Your task to perform on an android device: set the timer Image 0: 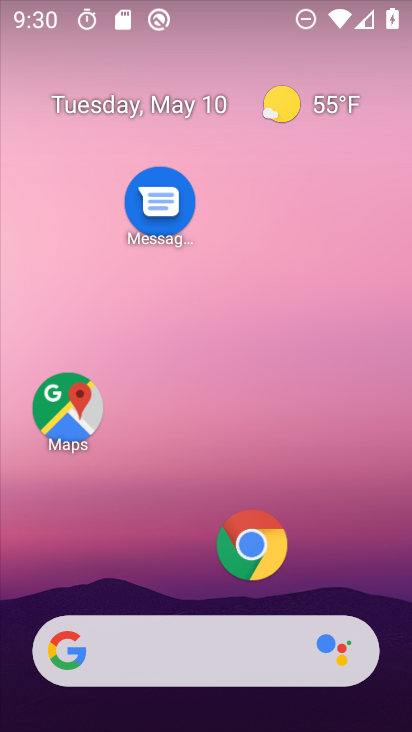
Step 0: drag from (196, 579) to (228, 131)
Your task to perform on an android device: set the timer Image 1: 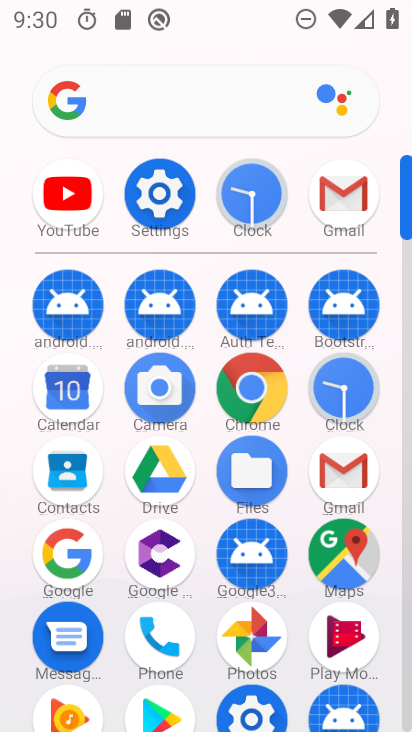
Step 1: click (251, 182)
Your task to perform on an android device: set the timer Image 2: 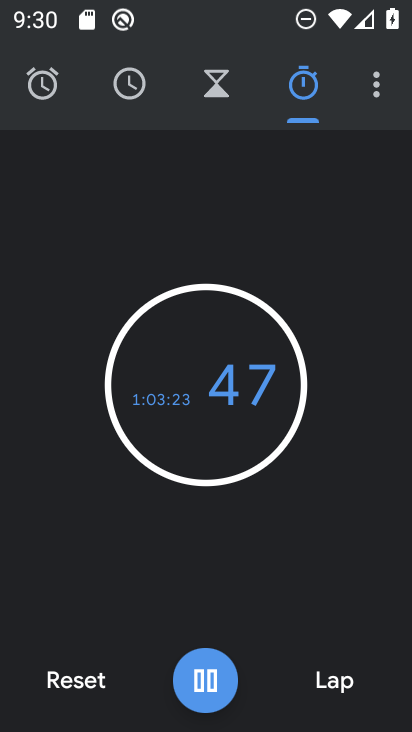
Step 2: click (384, 95)
Your task to perform on an android device: set the timer Image 3: 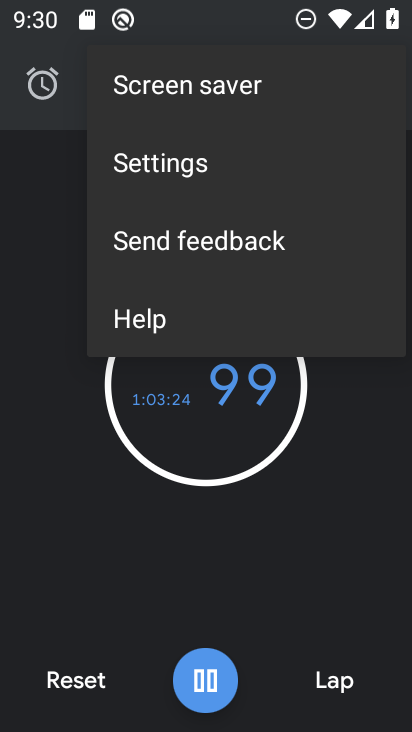
Step 3: click (168, 486)
Your task to perform on an android device: set the timer Image 4: 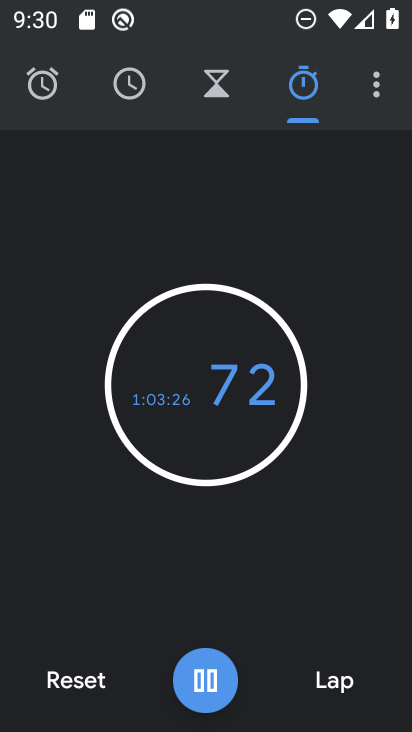
Step 4: click (216, 108)
Your task to perform on an android device: set the timer Image 5: 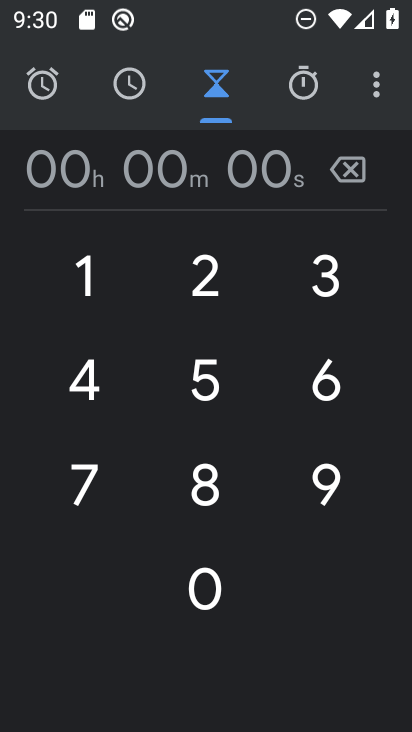
Step 5: click (272, 173)
Your task to perform on an android device: set the timer Image 6: 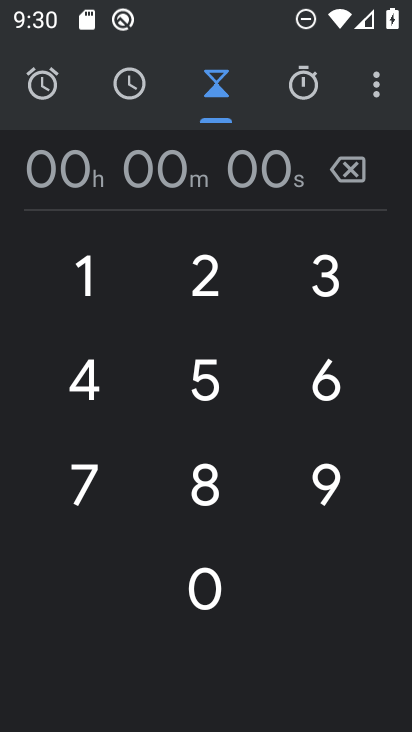
Step 6: type "23"
Your task to perform on an android device: set the timer Image 7: 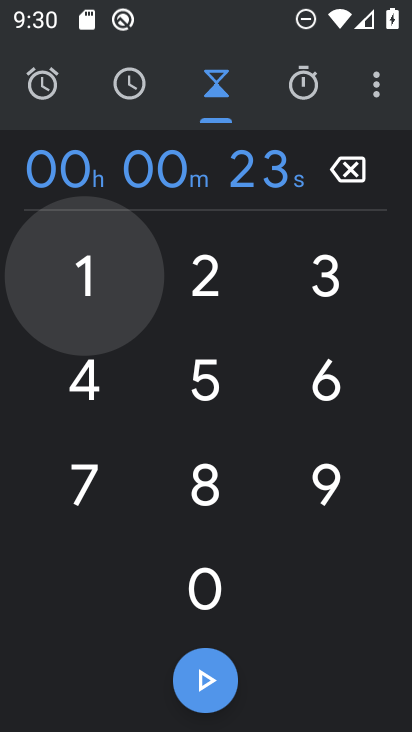
Step 7: click (207, 704)
Your task to perform on an android device: set the timer Image 8: 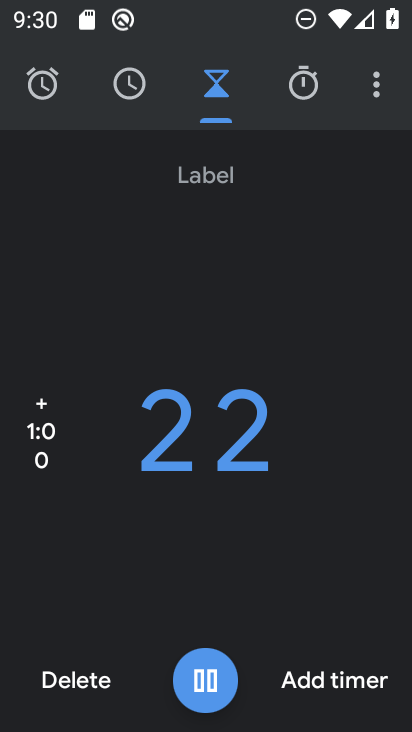
Step 8: task complete